Your task to perform on an android device: What's the weather going to be tomorrow? Image 0: 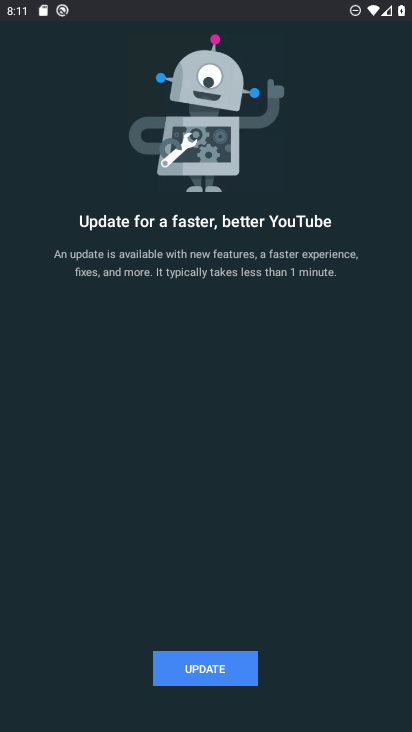
Step 0: press home button
Your task to perform on an android device: What's the weather going to be tomorrow? Image 1: 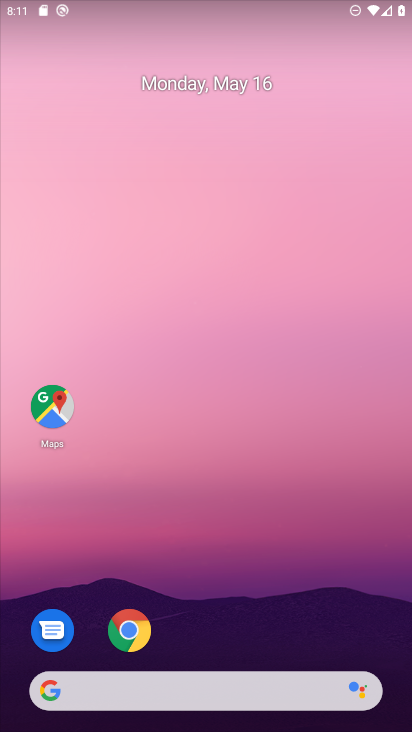
Step 1: click (196, 695)
Your task to perform on an android device: What's the weather going to be tomorrow? Image 2: 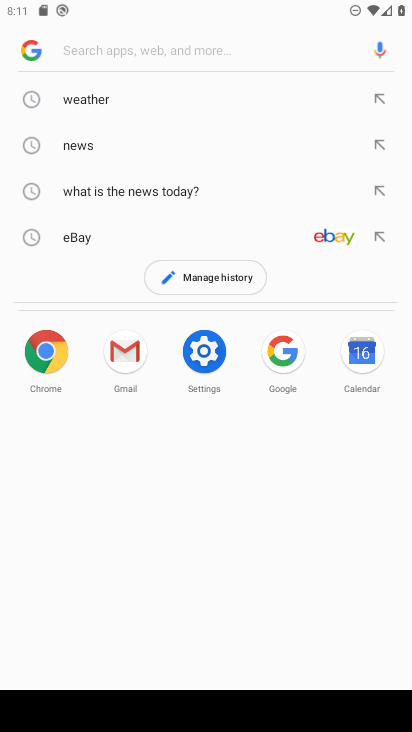
Step 2: click (124, 76)
Your task to perform on an android device: What's the weather going to be tomorrow? Image 3: 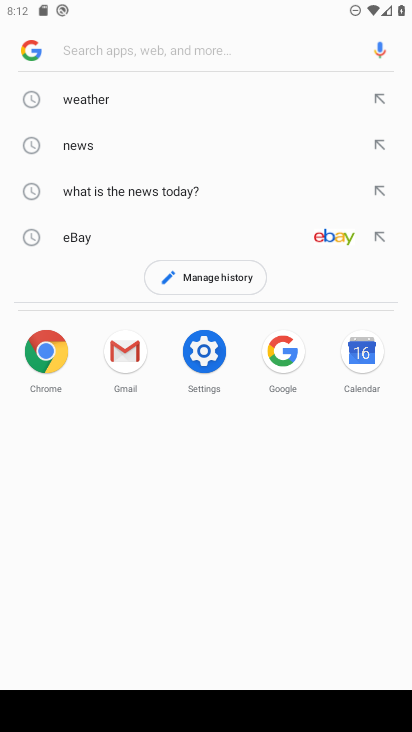
Step 3: click (99, 103)
Your task to perform on an android device: What's the weather going to be tomorrow? Image 4: 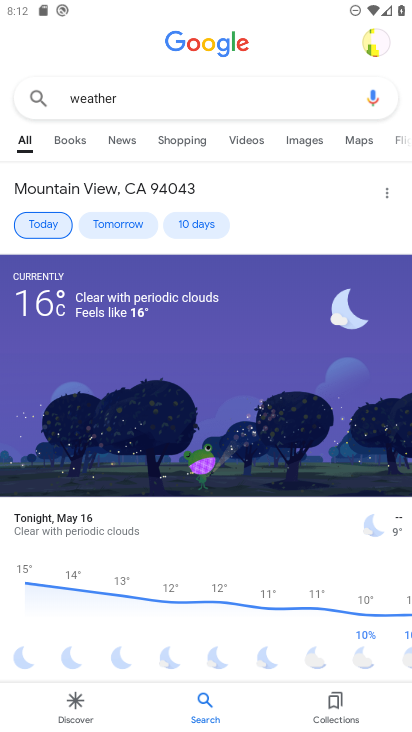
Step 4: click (96, 220)
Your task to perform on an android device: What's the weather going to be tomorrow? Image 5: 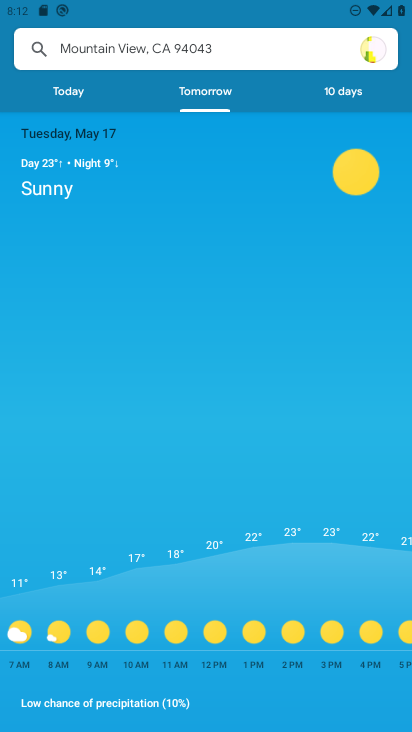
Step 5: click (212, 40)
Your task to perform on an android device: What's the weather going to be tomorrow? Image 6: 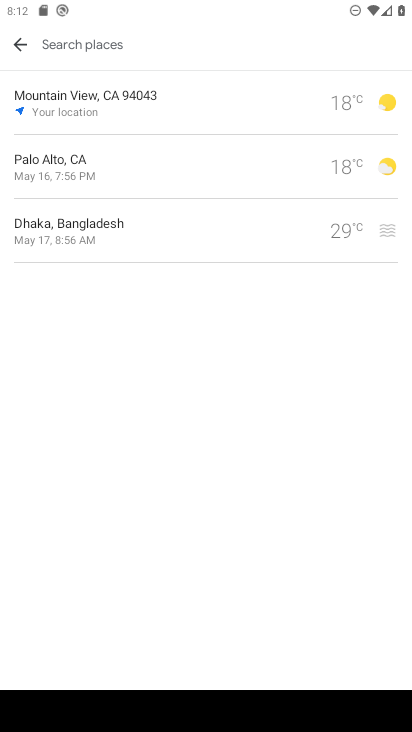
Step 6: task complete